Your task to perform on an android device: Open wifi settings Image 0: 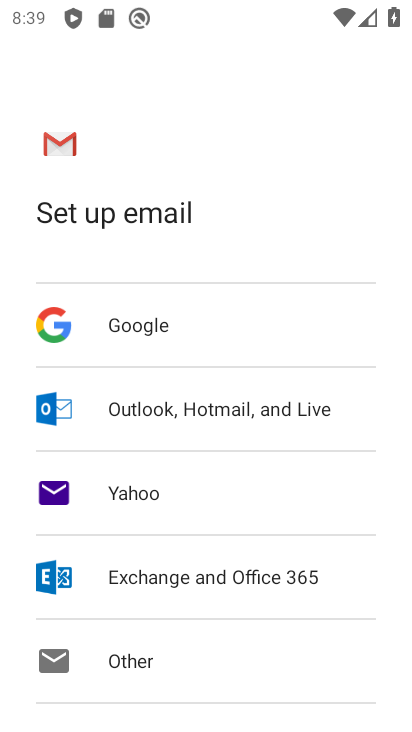
Step 0: press home button
Your task to perform on an android device: Open wifi settings Image 1: 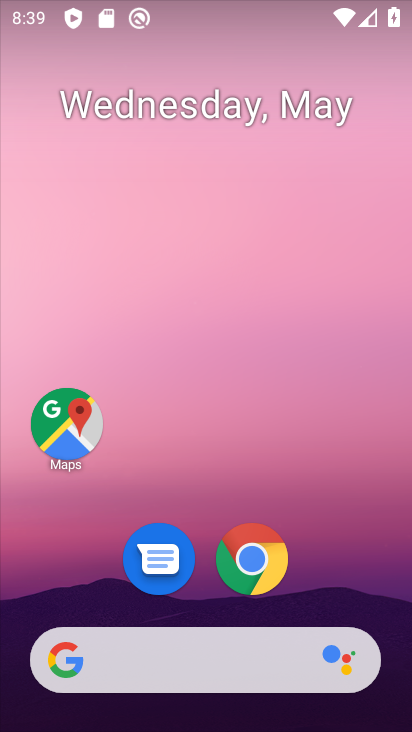
Step 1: drag from (58, 605) to (219, 64)
Your task to perform on an android device: Open wifi settings Image 2: 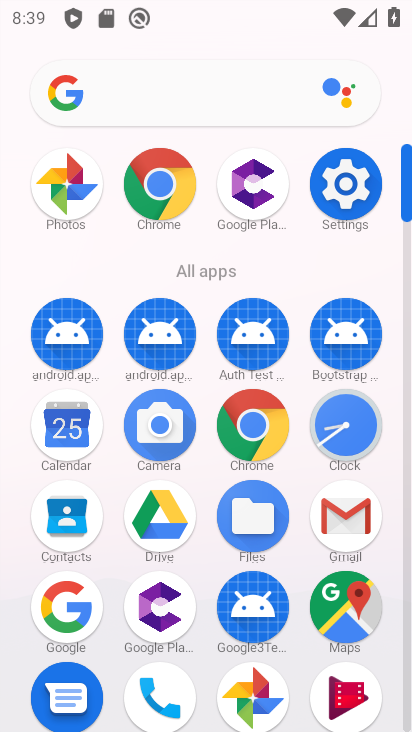
Step 2: drag from (175, 663) to (242, 380)
Your task to perform on an android device: Open wifi settings Image 3: 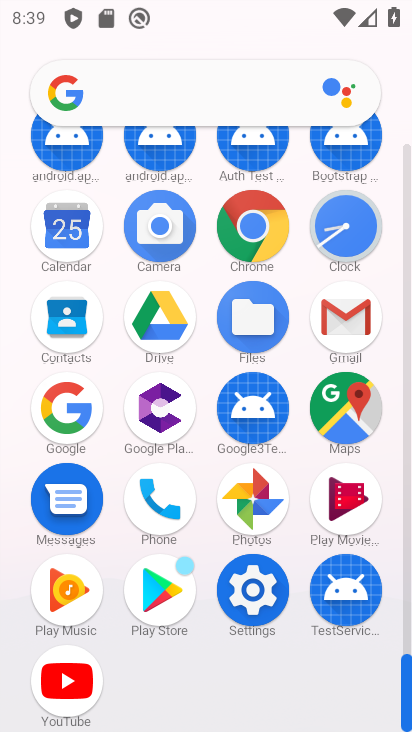
Step 3: click (263, 592)
Your task to perform on an android device: Open wifi settings Image 4: 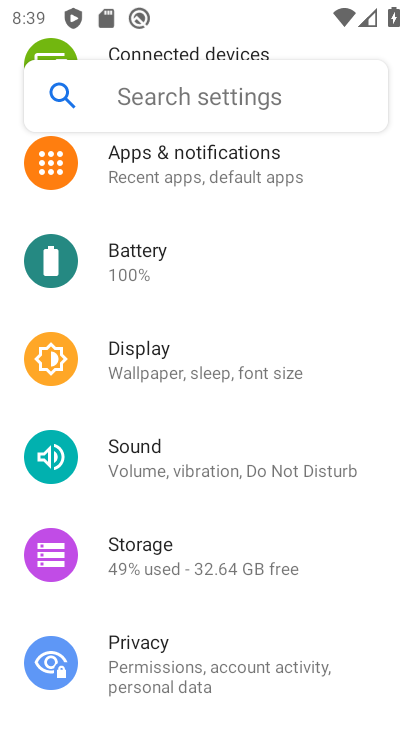
Step 4: drag from (272, 196) to (212, 660)
Your task to perform on an android device: Open wifi settings Image 5: 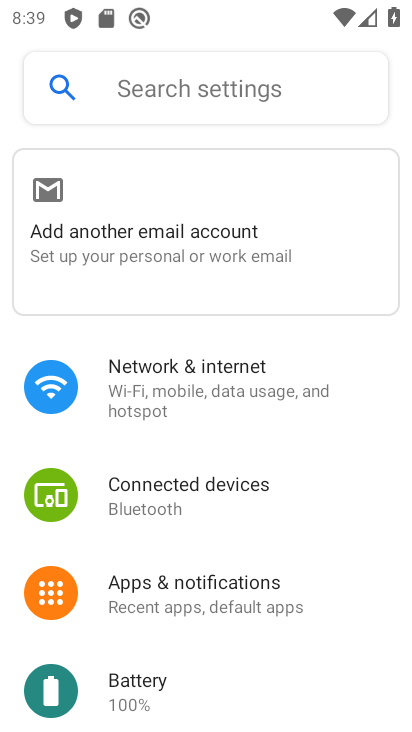
Step 5: click (201, 392)
Your task to perform on an android device: Open wifi settings Image 6: 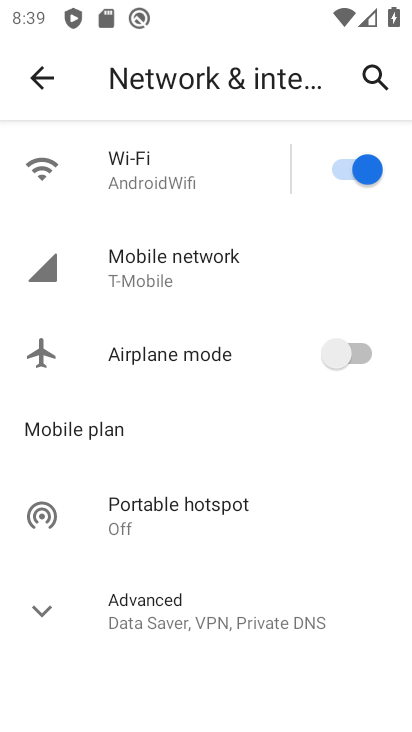
Step 6: click (202, 183)
Your task to perform on an android device: Open wifi settings Image 7: 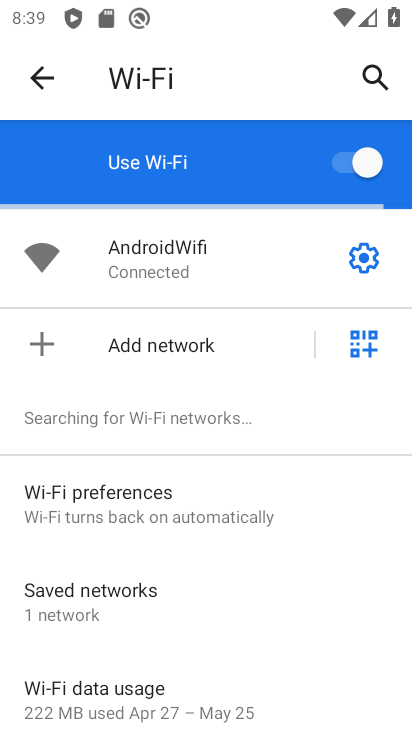
Step 7: task complete